Your task to perform on an android device: Open display settings Image 0: 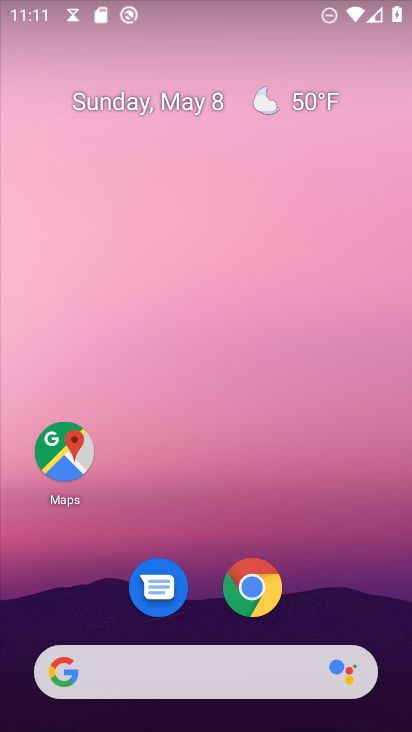
Step 0: drag from (311, 556) to (188, 180)
Your task to perform on an android device: Open display settings Image 1: 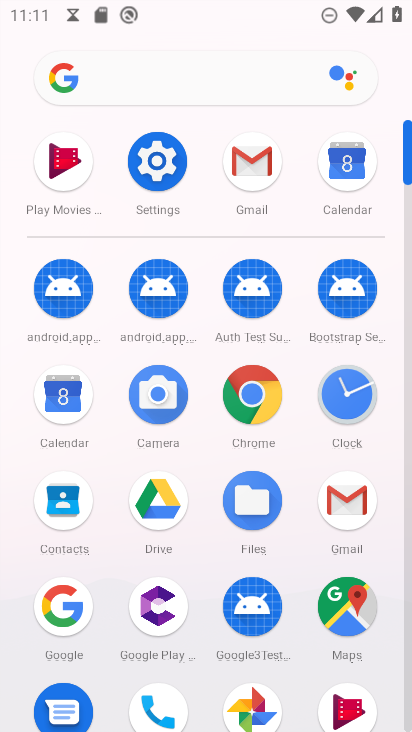
Step 1: click (159, 161)
Your task to perform on an android device: Open display settings Image 2: 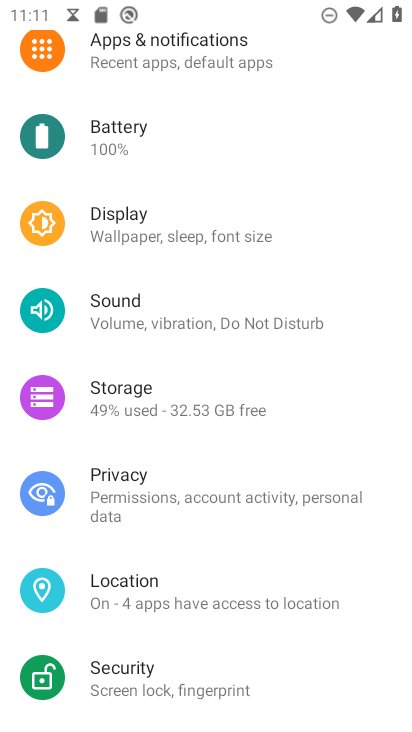
Step 2: click (143, 235)
Your task to perform on an android device: Open display settings Image 3: 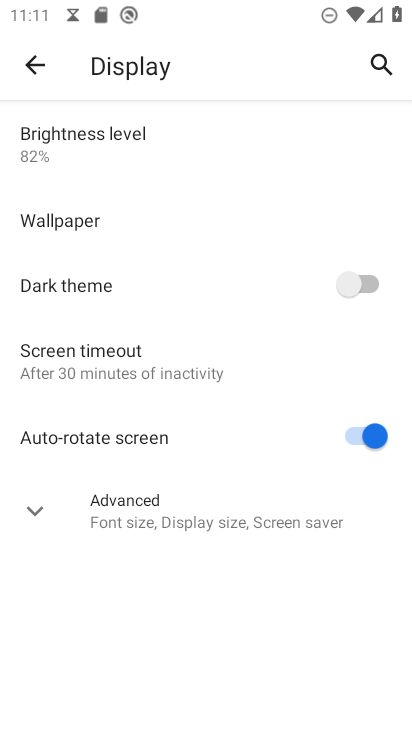
Step 3: click (136, 514)
Your task to perform on an android device: Open display settings Image 4: 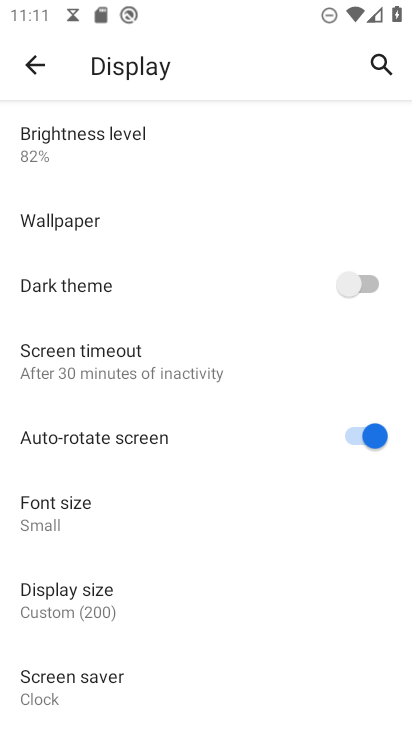
Step 4: task complete